Your task to perform on an android device: Open internet settings Image 0: 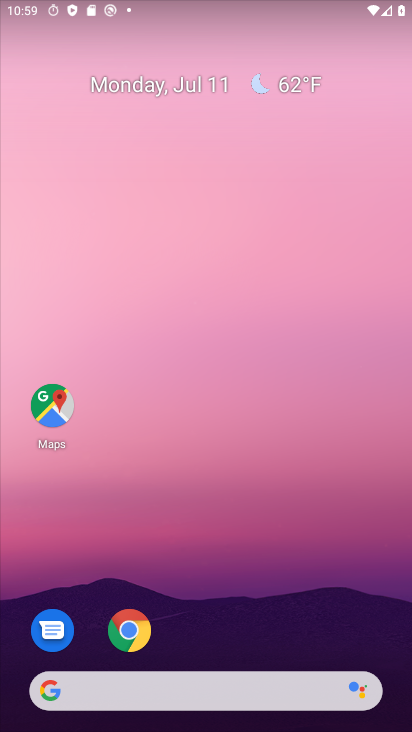
Step 0: drag from (341, 619) to (407, 27)
Your task to perform on an android device: Open internet settings Image 1: 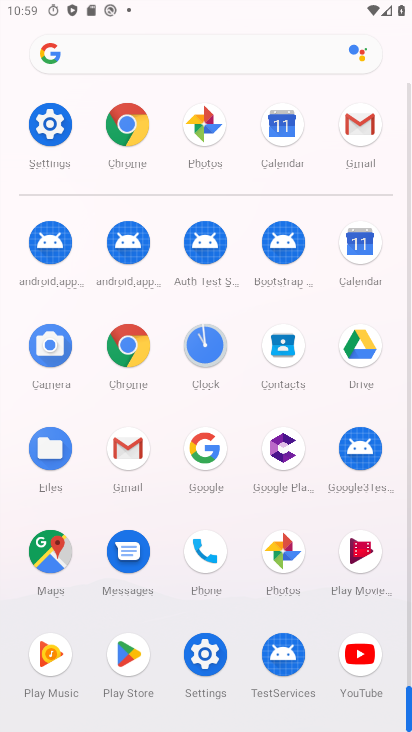
Step 1: click (36, 121)
Your task to perform on an android device: Open internet settings Image 2: 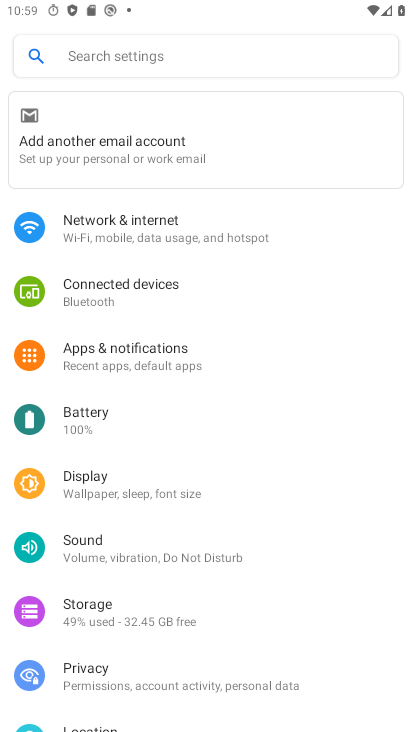
Step 2: click (152, 240)
Your task to perform on an android device: Open internet settings Image 3: 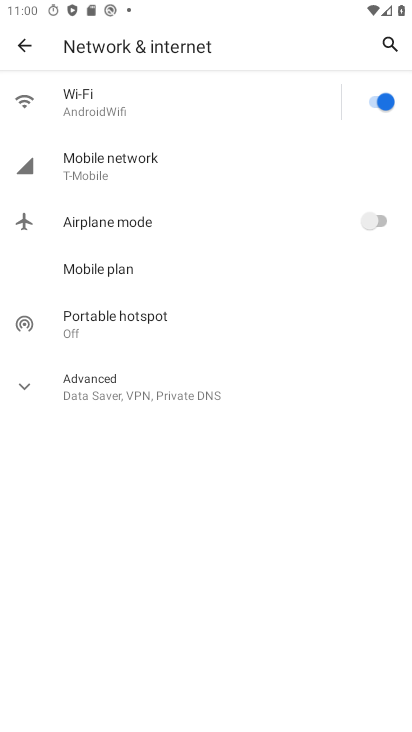
Step 3: click (141, 177)
Your task to perform on an android device: Open internet settings Image 4: 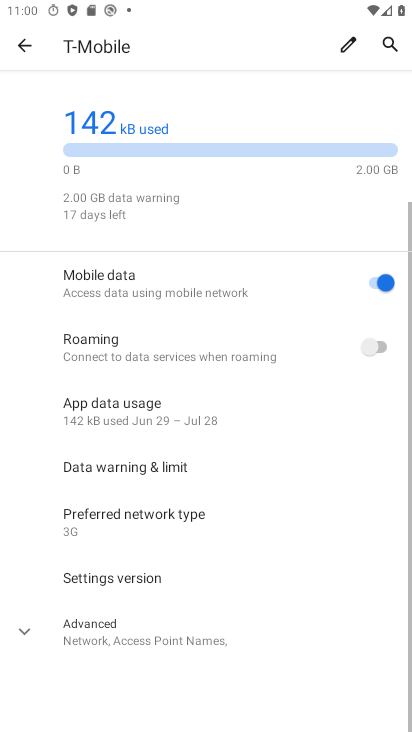
Step 4: task complete